Your task to perform on an android device: open chrome and create a bookmark for the current page Image 0: 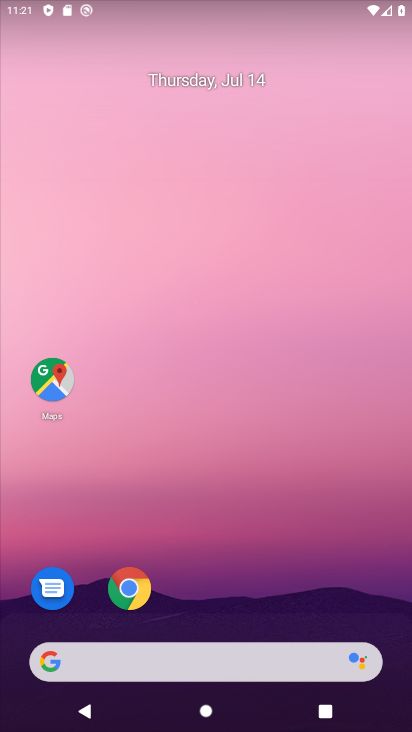
Step 0: drag from (301, 631) to (266, 302)
Your task to perform on an android device: open chrome and create a bookmark for the current page Image 1: 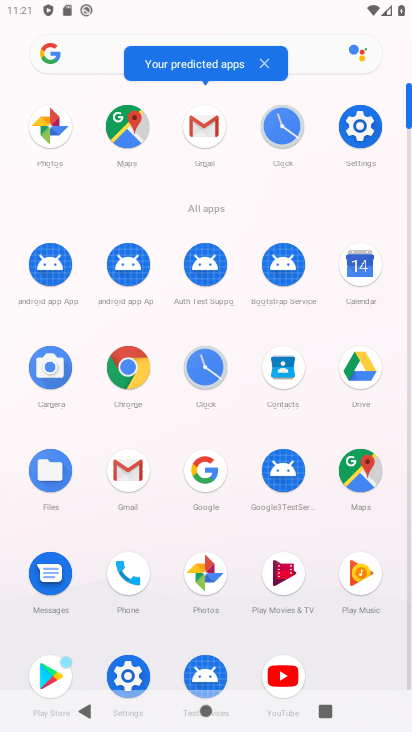
Step 1: click (132, 379)
Your task to perform on an android device: open chrome and create a bookmark for the current page Image 2: 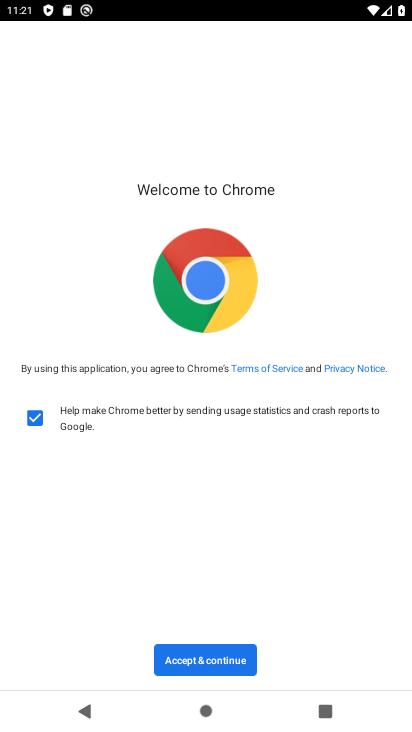
Step 2: click (194, 666)
Your task to perform on an android device: open chrome and create a bookmark for the current page Image 3: 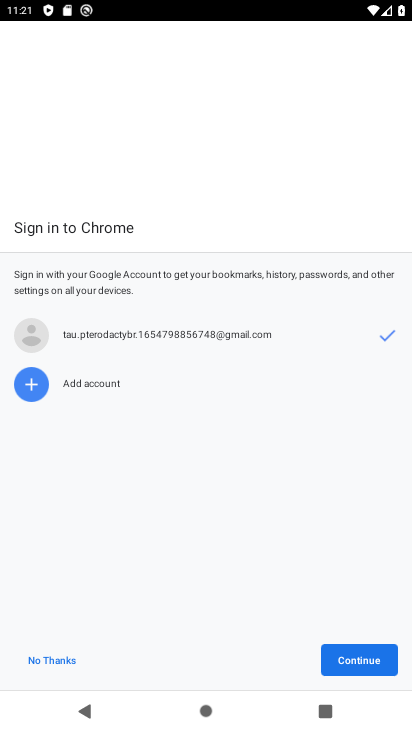
Step 3: click (384, 662)
Your task to perform on an android device: open chrome and create a bookmark for the current page Image 4: 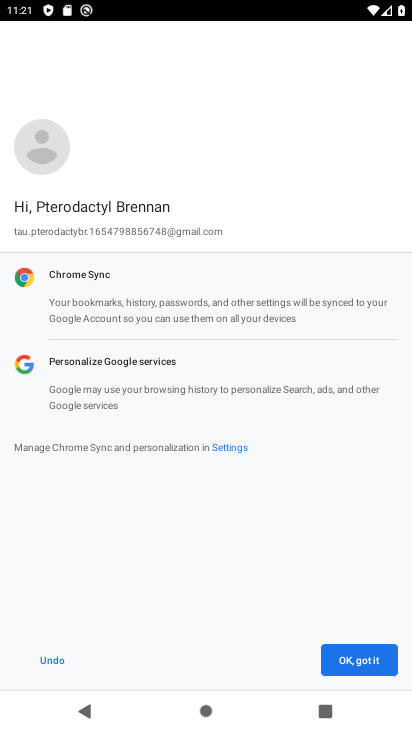
Step 4: click (384, 662)
Your task to perform on an android device: open chrome and create a bookmark for the current page Image 5: 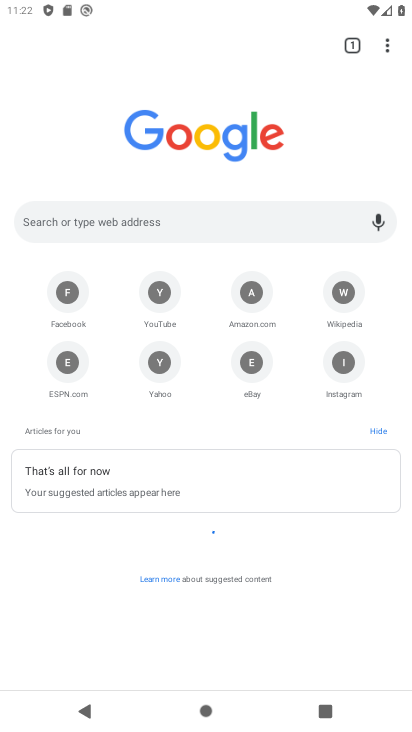
Step 5: click (388, 52)
Your task to perform on an android device: open chrome and create a bookmark for the current page Image 6: 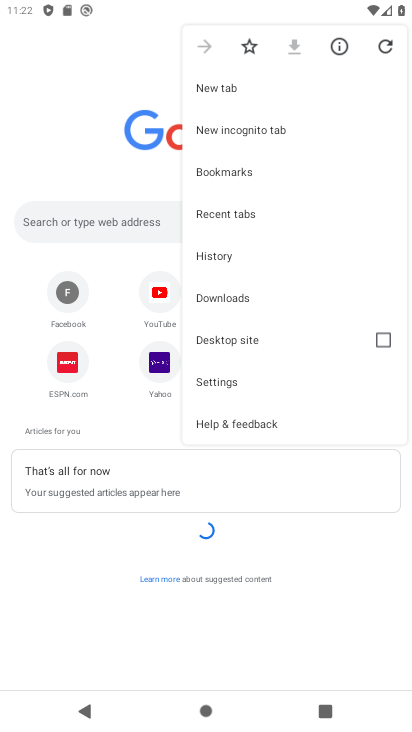
Step 6: click (247, 49)
Your task to perform on an android device: open chrome and create a bookmark for the current page Image 7: 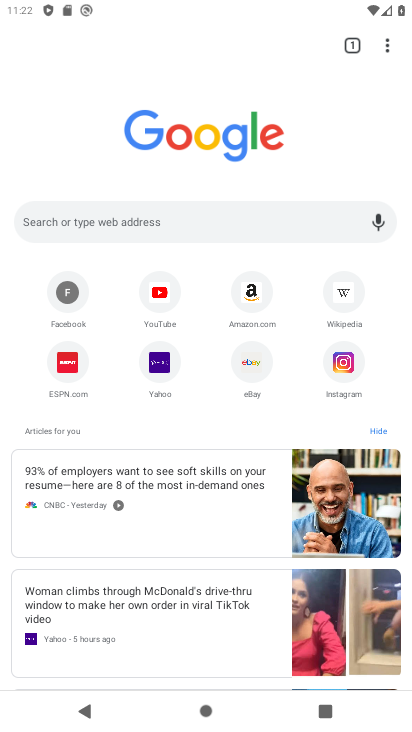
Step 7: task complete